Your task to perform on an android device: Show me popular videos on Youtube Image 0: 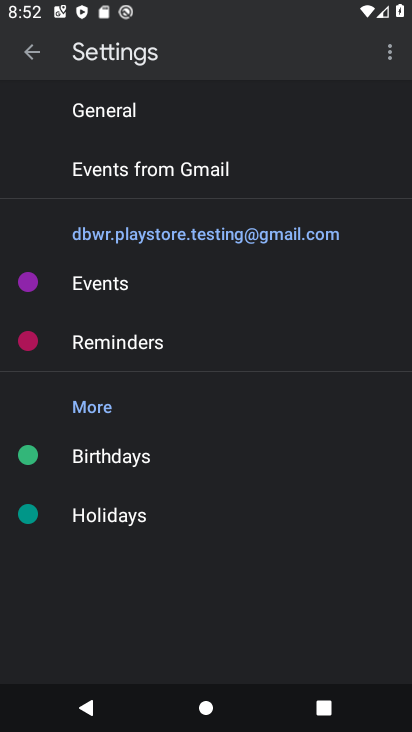
Step 0: press home button
Your task to perform on an android device: Show me popular videos on Youtube Image 1: 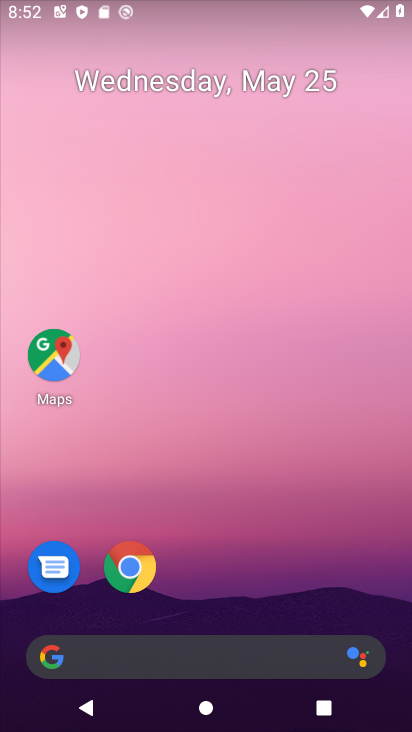
Step 1: drag from (309, 584) to (228, 216)
Your task to perform on an android device: Show me popular videos on Youtube Image 2: 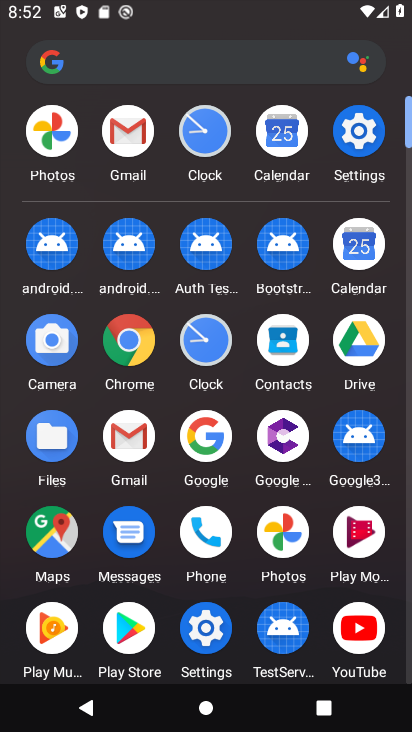
Step 2: click (374, 619)
Your task to perform on an android device: Show me popular videos on Youtube Image 3: 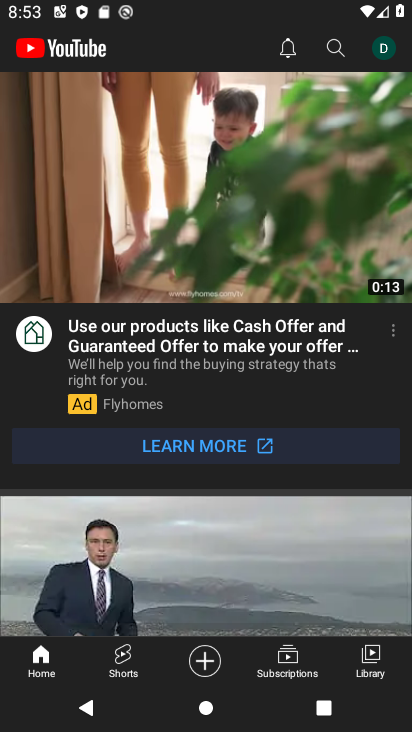
Step 3: click (374, 662)
Your task to perform on an android device: Show me popular videos on Youtube Image 4: 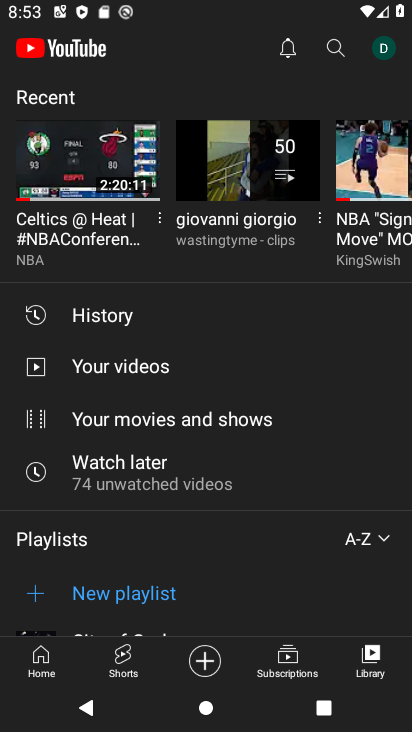
Step 4: click (48, 673)
Your task to perform on an android device: Show me popular videos on Youtube Image 5: 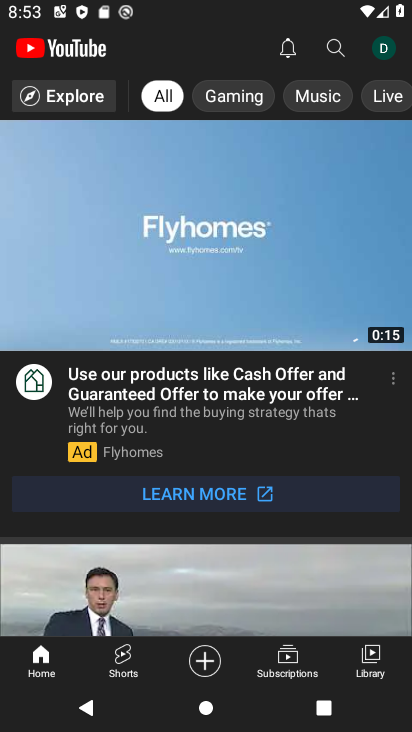
Step 5: task complete